Your task to perform on an android device: delete browsing data in the chrome app Image 0: 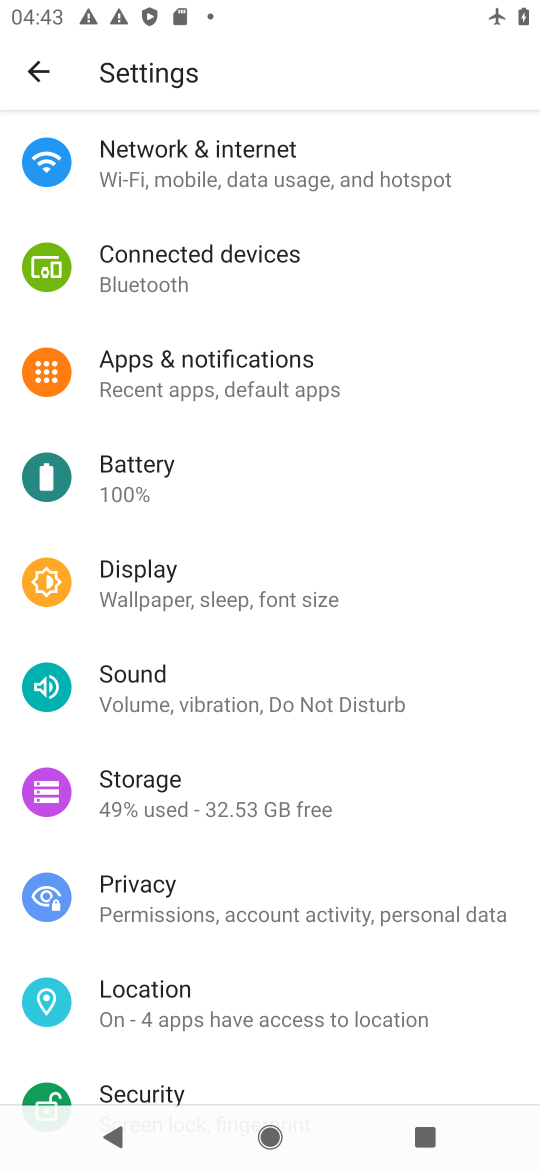
Step 0: press home button
Your task to perform on an android device: delete browsing data in the chrome app Image 1: 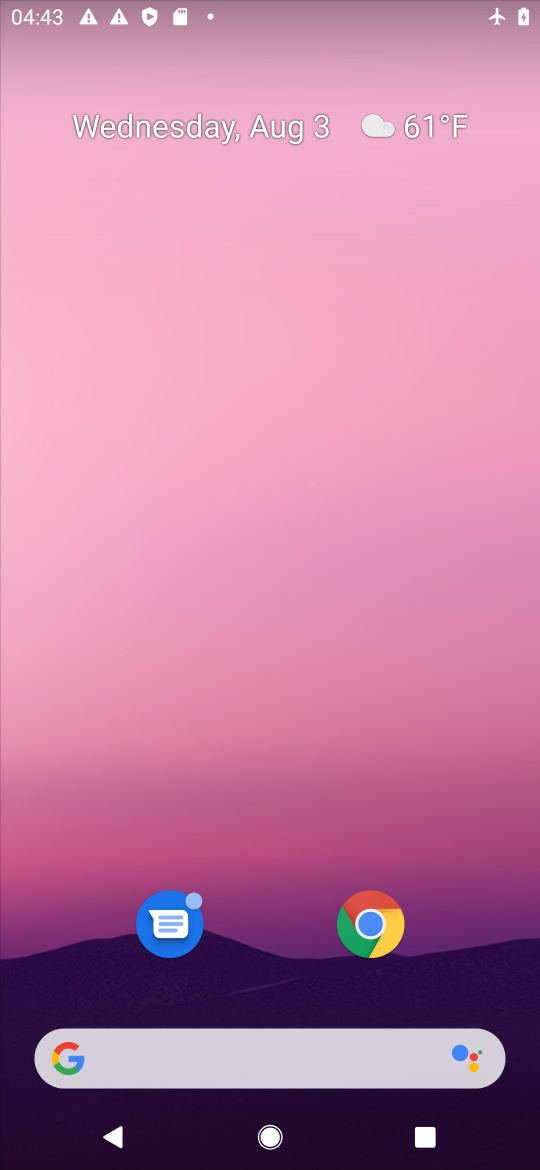
Step 1: click (364, 933)
Your task to perform on an android device: delete browsing data in the chrome app Image 2: 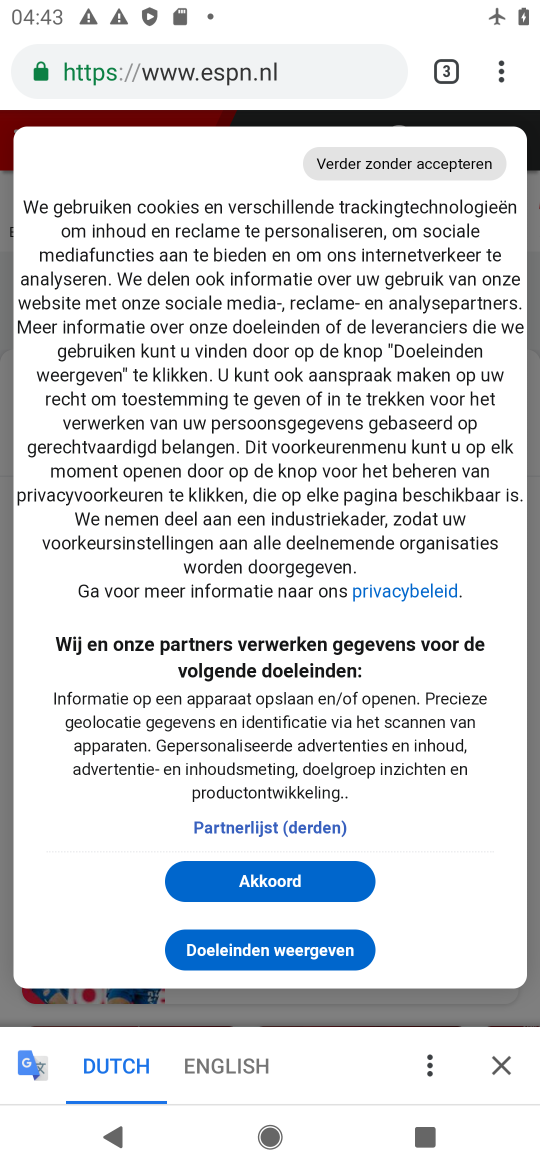
Step 2: click (497, 63)
Your task to perform on an android device: delete browsing data in the chrome app Image 3: 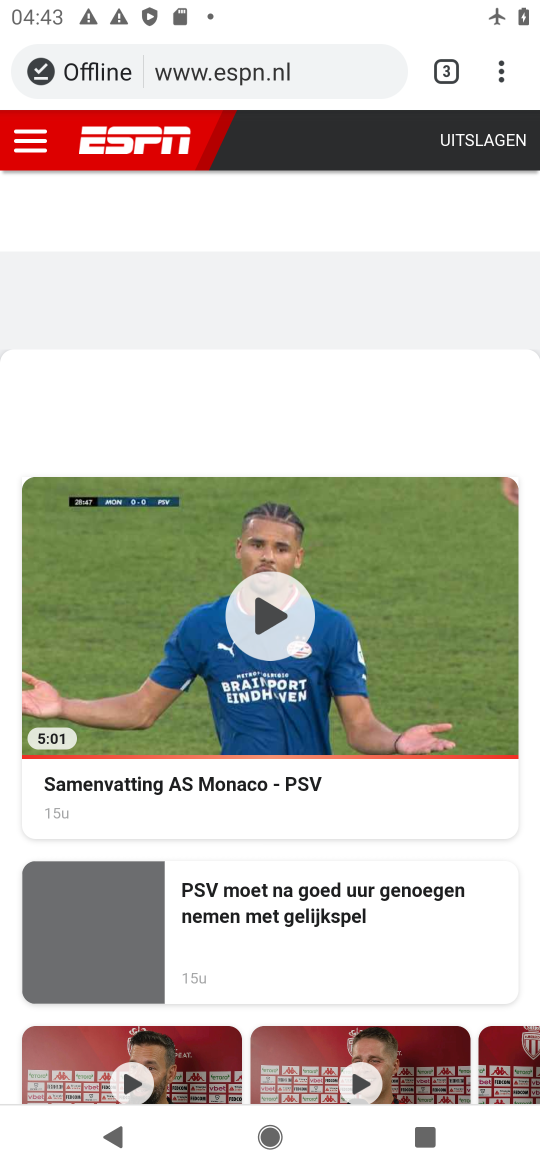
Step 3: click (499, 73)
Your task to perform on an android device: delete browsing data in the chrome app Image 4: 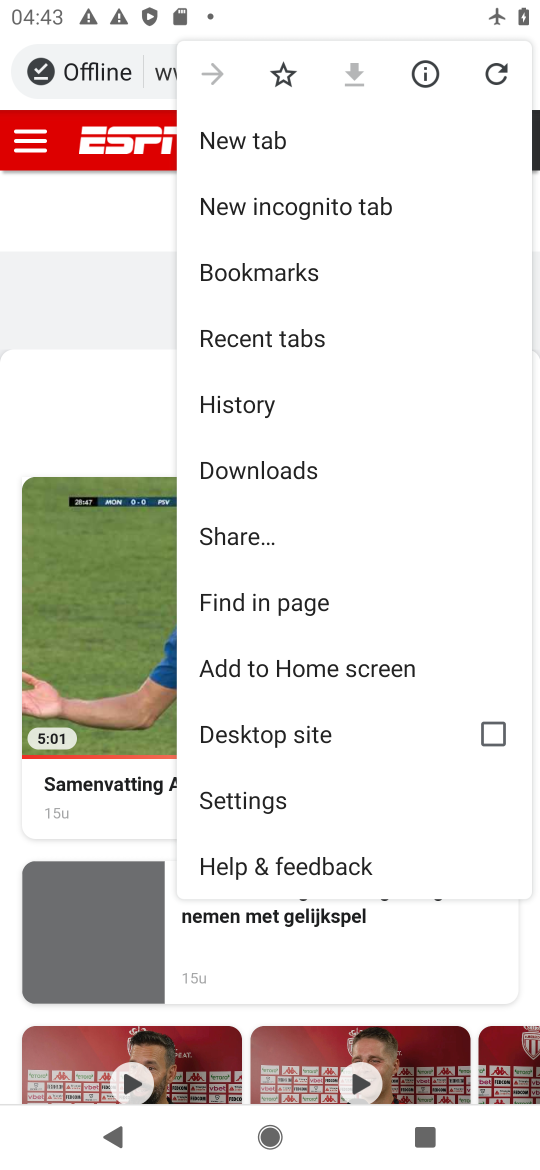
Step 4: click (294, 394)
Your task to perform on an android device: delete browsing data in the chrome app Image 5: 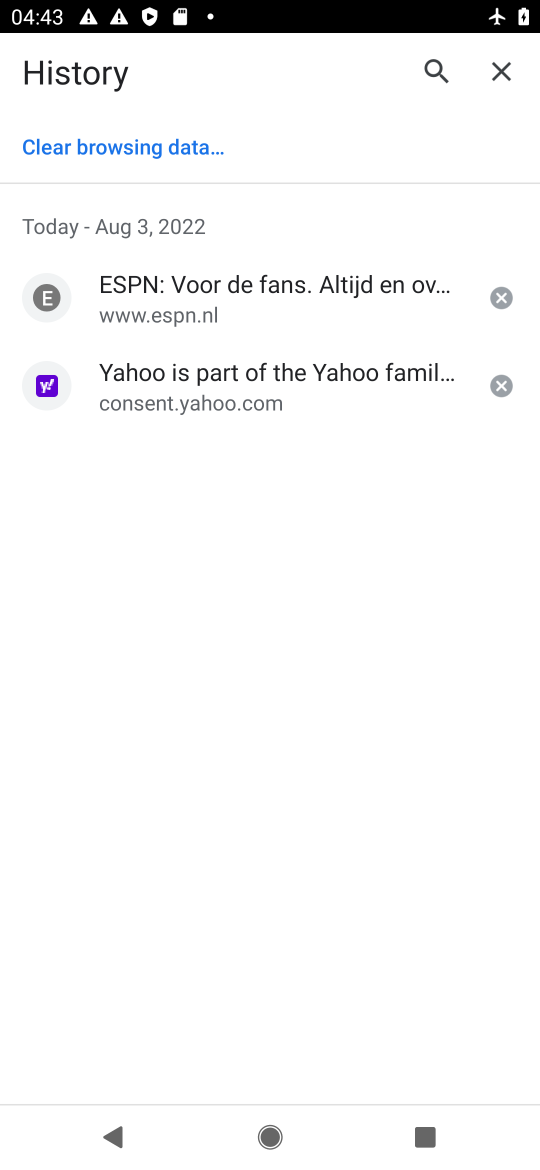
Step 5: click (114, 148)
Your task to perform on an android device: delete browsing data in the chrome app Image 6: 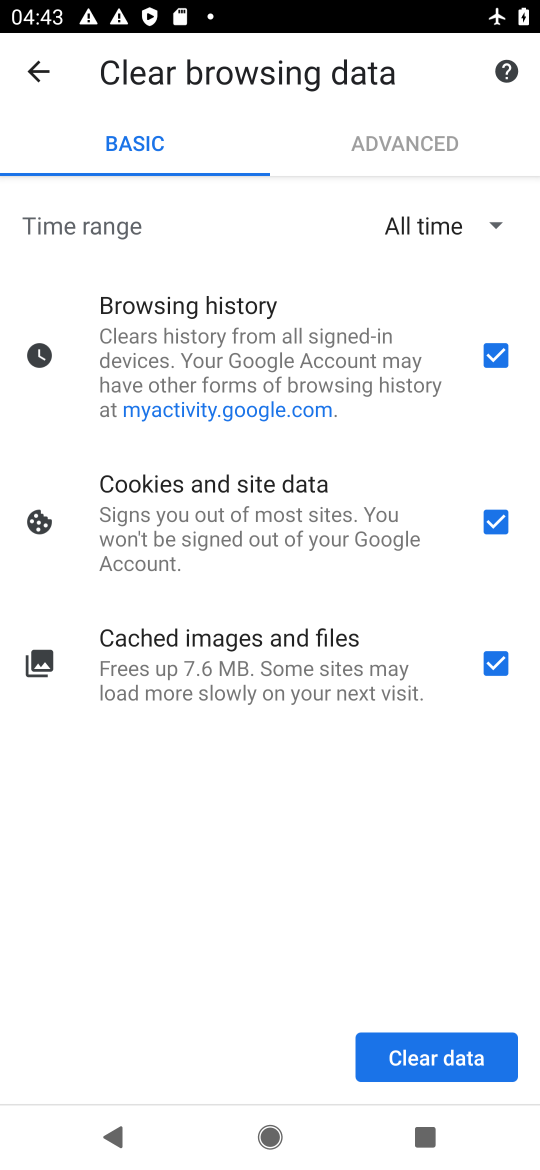
Step 6: click (464, 1039)
Your task to perform on an android device: delete browsing data in the chrome app Image 7: 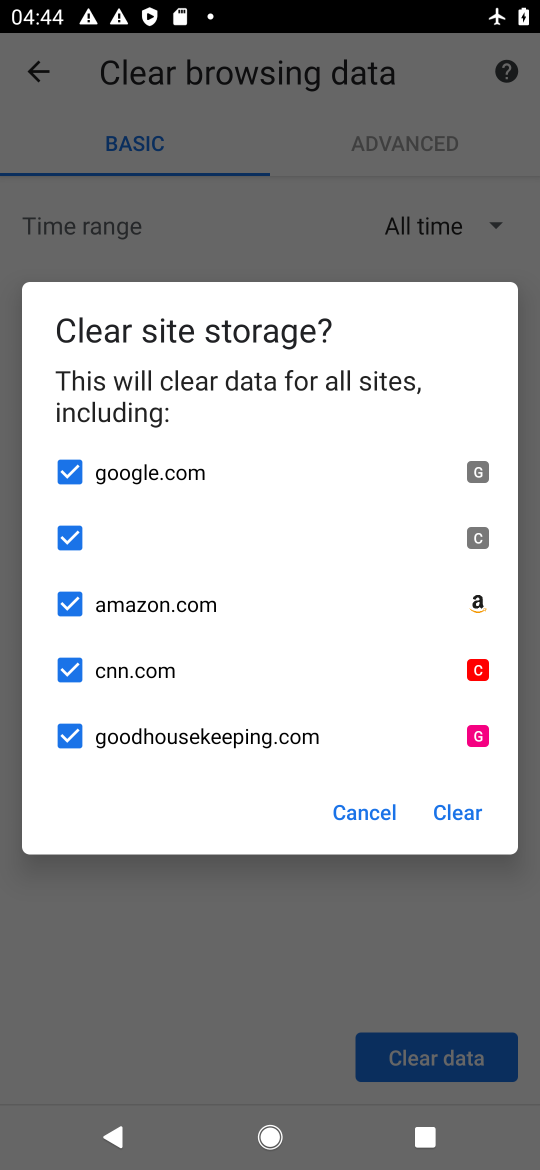
Step 7: click (453, 807)
Your task to perform on an android device: delete browsing data in the chrome app Image 8: 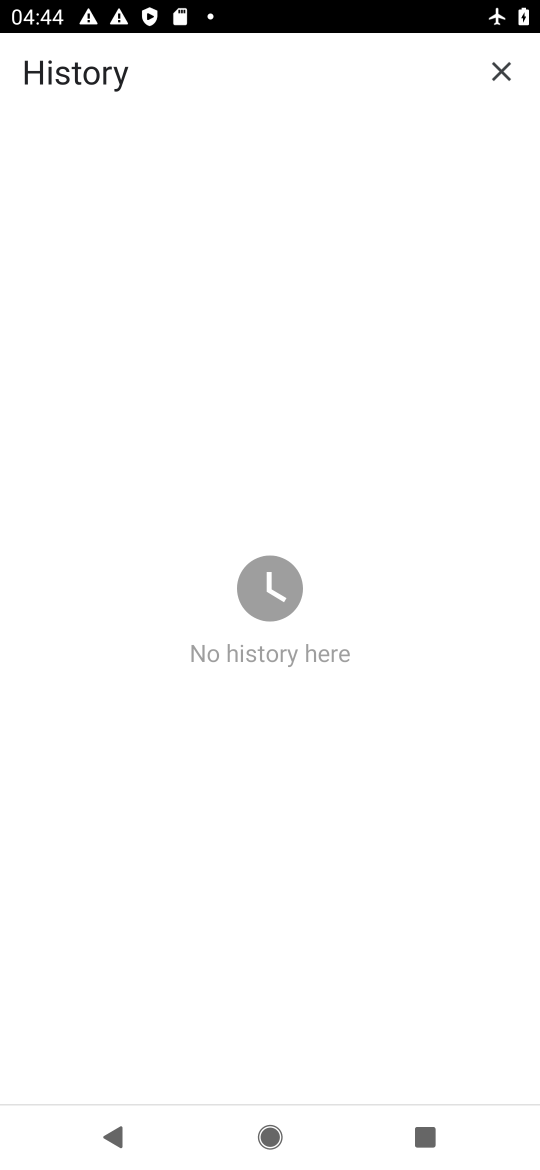
Step 8: task complete